Your task to perform on an android device: Go to wifi settings Image 0: 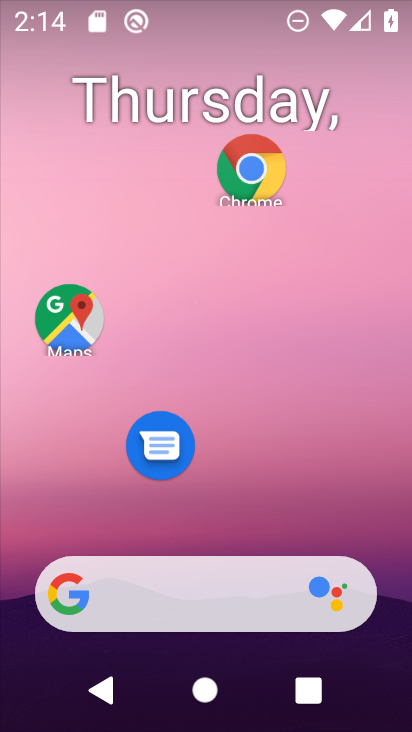
Step 0: drag from (274, 640) to (191, 201)
Your task to perform on an android device: Go to wifi settings Image 1: 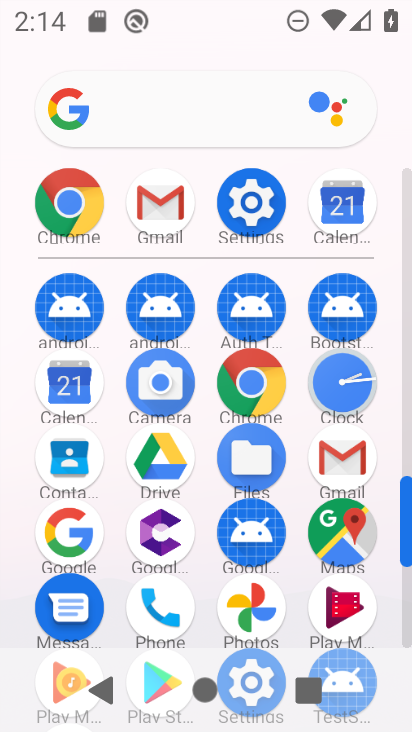
Step 1: click (255, 218)
Your task to perform on an android device: Go to wifi settings Image 2: 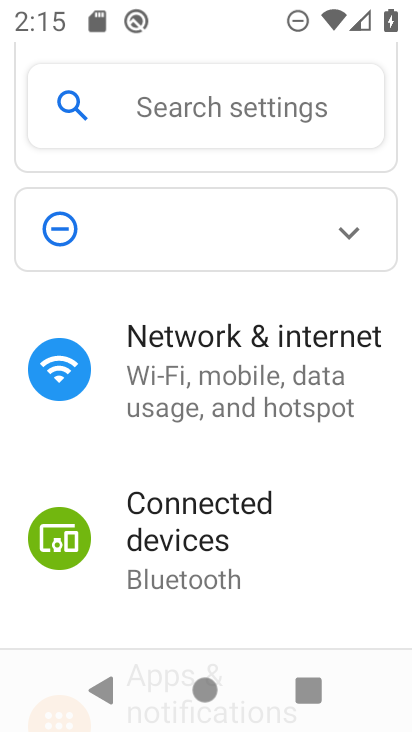
Step 2: click (211, 390)
Your task to perform on an android device: Go to wifi settings Image 3: 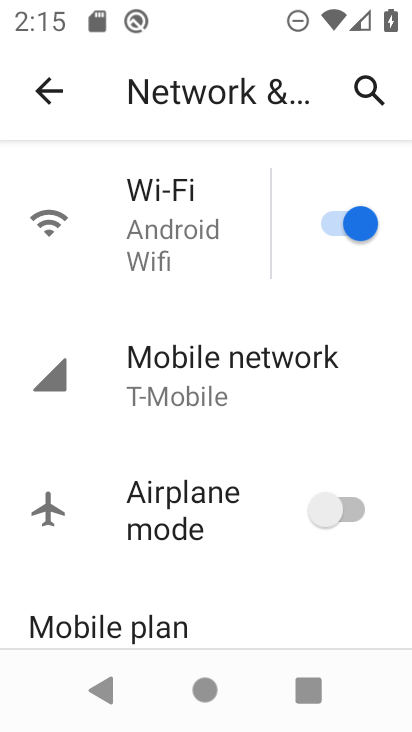
Step 3: click (217, 210)
Your task to perform on an android device: Go to wifi settings Image 4: 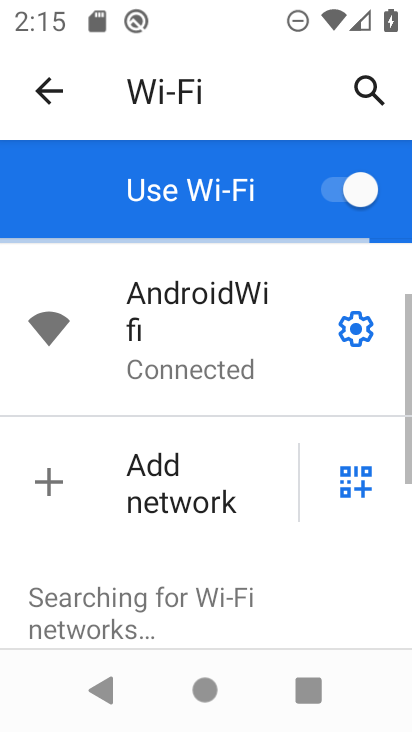
Step 4: task complete